Your task to perform on an android device: Check the news Image 0: 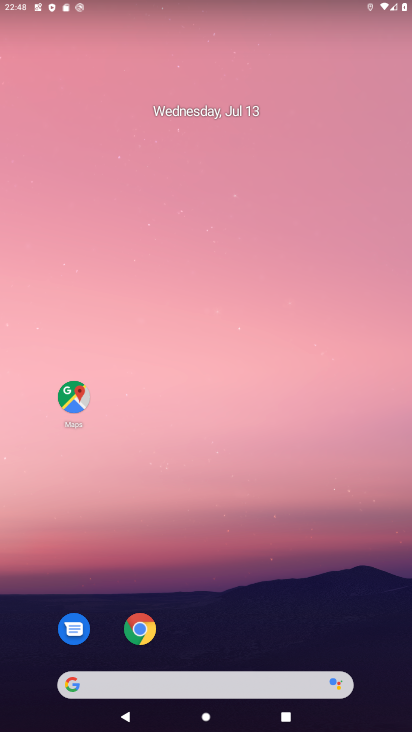
Step 0: press home button
Your task to perform on an android device: Check the news Image 1: 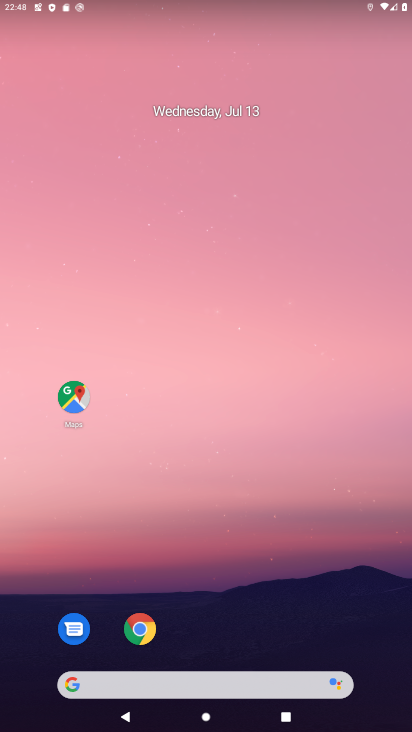
Step 1: task complete